Your task to perform on an android device: What's the weather? Image 0: 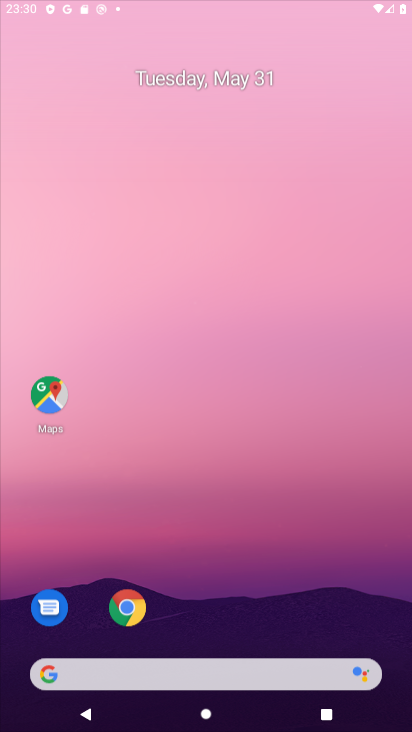
Step 0: press home button
Your task to perform on an android device: What's the weather? Image 1: 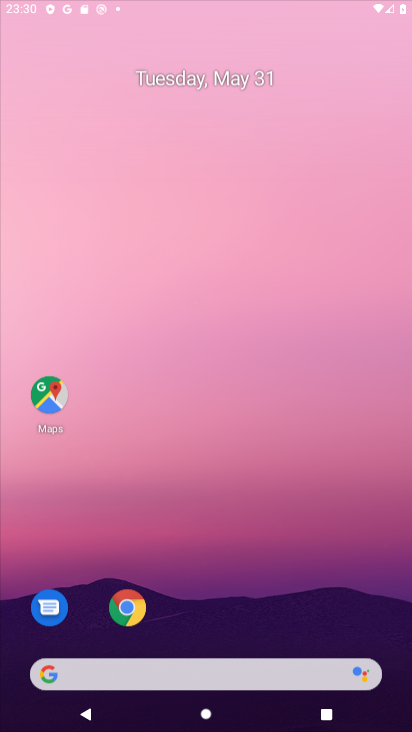
Step 1: click (135, 612)
Your task to perform on an android device: What's the weather? Image 2: 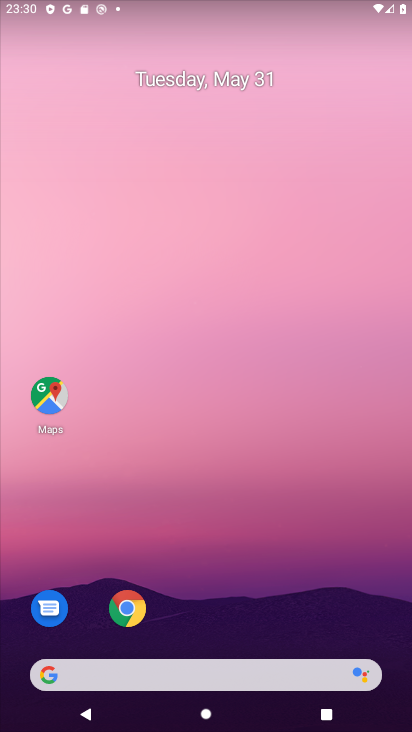
Step 2: click (137, 610)
Your task to perform on an android device: What's the weather? Image 3: 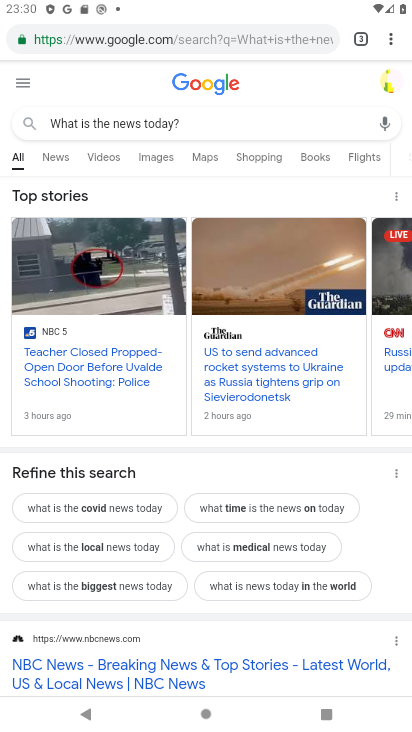
Step 3: click (201, 31)
Your task to perform on an android device: What's the weather? Image 4: 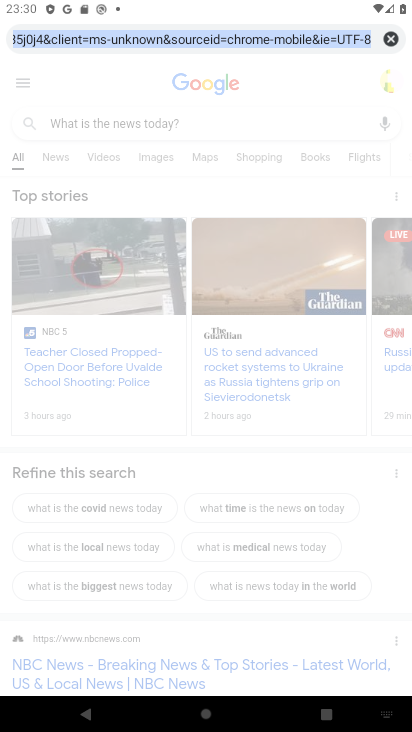
Step 4: click (391, 36)
Your task to perform on an android device: What's the weather? Image 5: 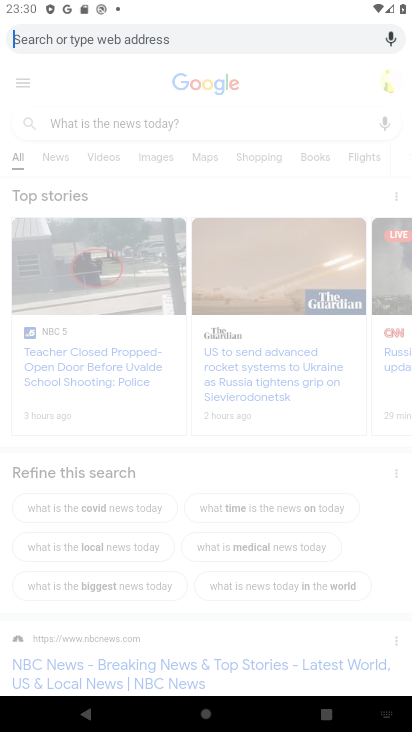
Step 5: type "What's the weather?"
Your task to perform on an android device: What's the weather? Image 6: 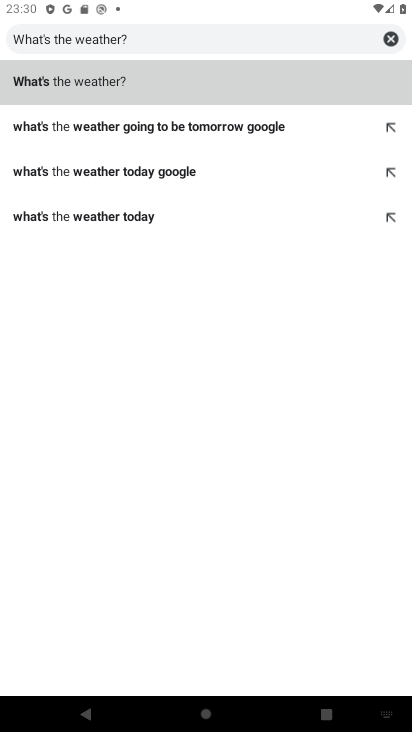
Step 6: click (74, 56)
Your task to perform on an android device: What's the weather? Image 7: 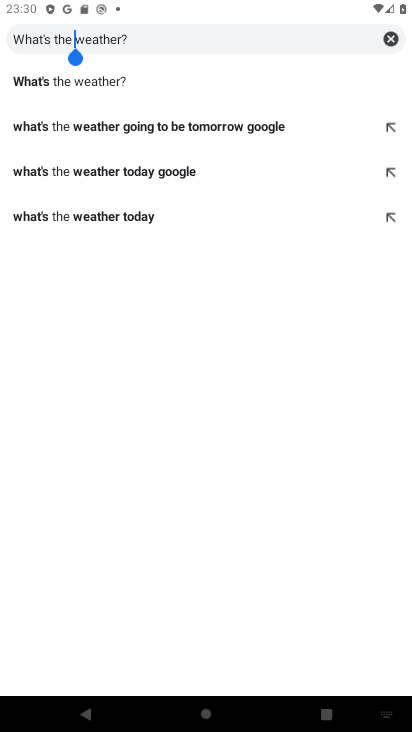
Step 7: click (103, 83)
Your task to perform on an android device: What's the weather? Image 8: 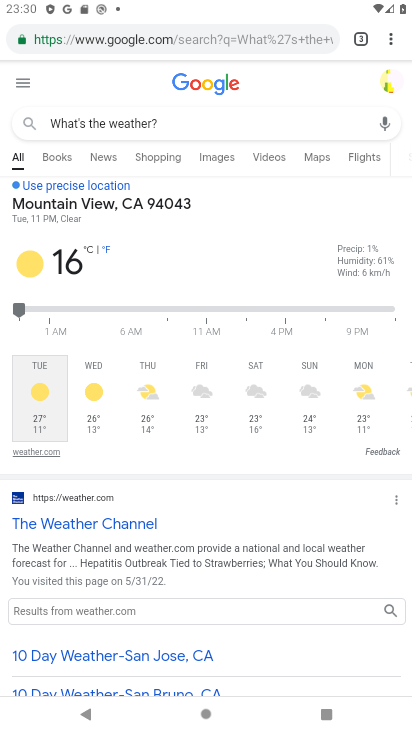
Step 8: task complete